Your task to perform on an android device: What's the weather going to be this weekend? Image 0: 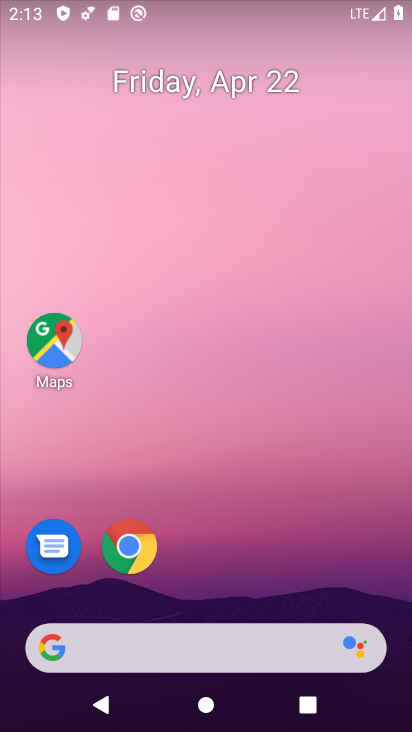
Step 0: drag from (219, 529) to (287, 206)
Your task to perform on an android device: What's the weather going to be this weekend? Image 1: 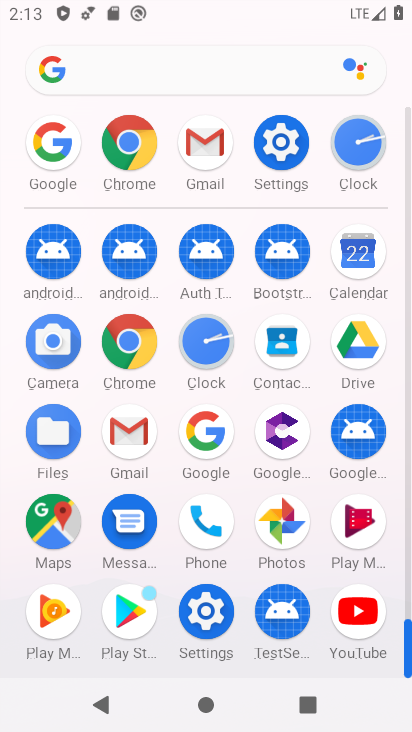
Step 1: click (215, 449)
Your task to perform on an android device: What's the weather going to be this weekend? Image 2: 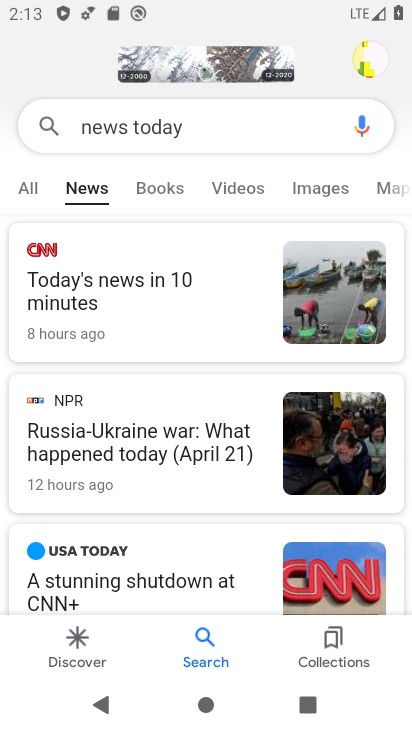
Step 2: click (267, 125)
Your task to perform on an android device: What's the weather going to be this weekend? Image 3: 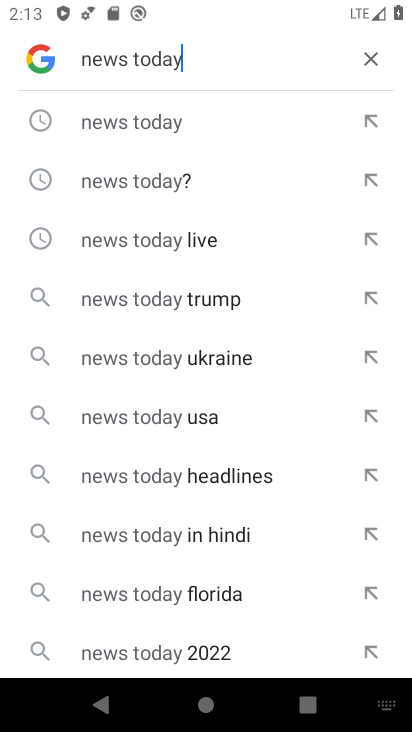
Step 3: click (371, 69)
Your task to perform on an android device: What's the weather going to be this weekend? Image 4: 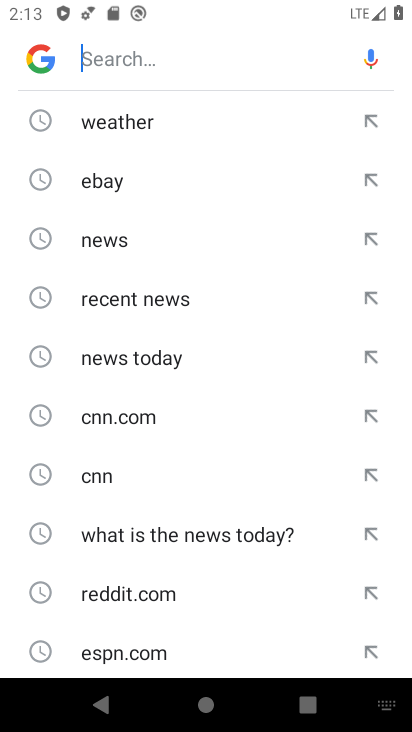
Step 4: click (366, 119)
Your task to perform on an android device: What's the weather going to be this weekend? Image 5: 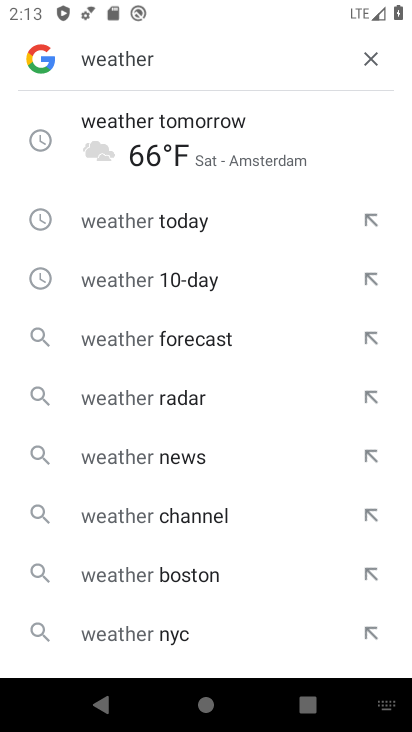
Step 5: type "saturday"
Your task to perform on an android device: What's the weather going to be this weekend? Image 6: 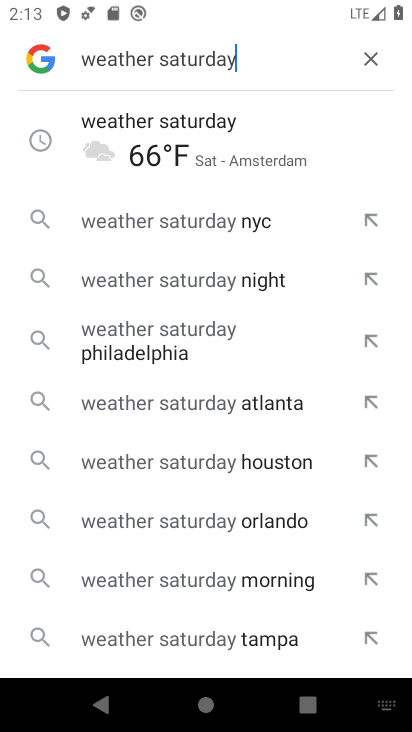
Step 6: click (278, 157)
Your task to perform on an android device: What's the weather going to be this weekend? Image 7: 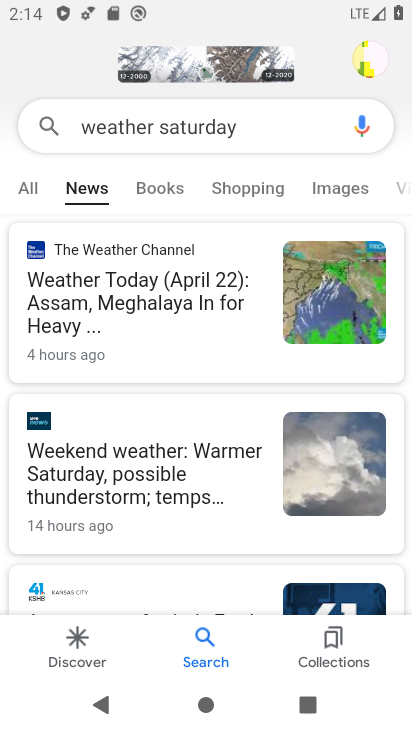
Step 7: click (38, 190)
Your task to perform on an android device: What's the weather going to be this weekend? Image 8: 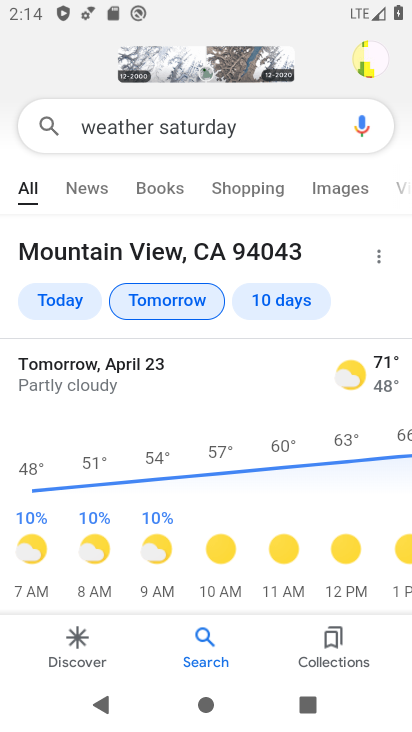
Step 8: task complete